Your task to perform on an android device: set the timer Image 0: 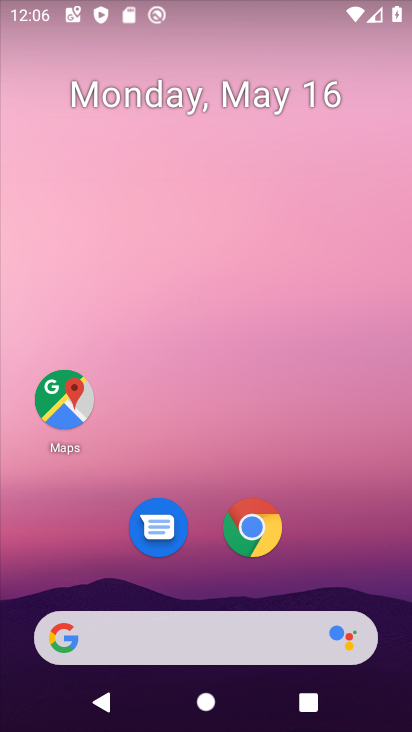
Step 0: drag from (211, 589) to (208, 70)
Your task to perform on an android device: set the timer Image 1: 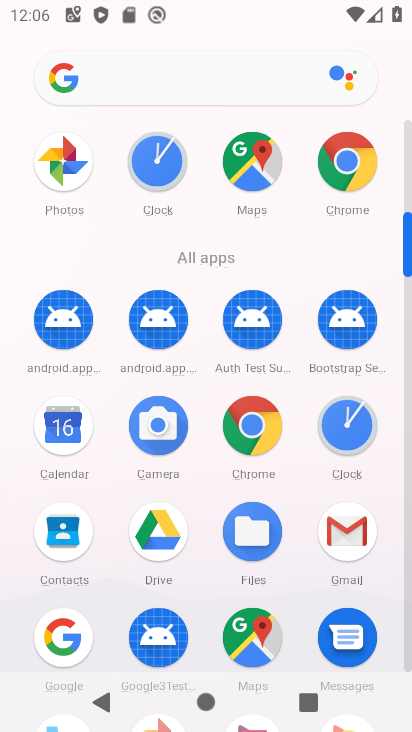
Step 1: click (163, 199)
Your task to perform on an android device: set the timer Image 2: 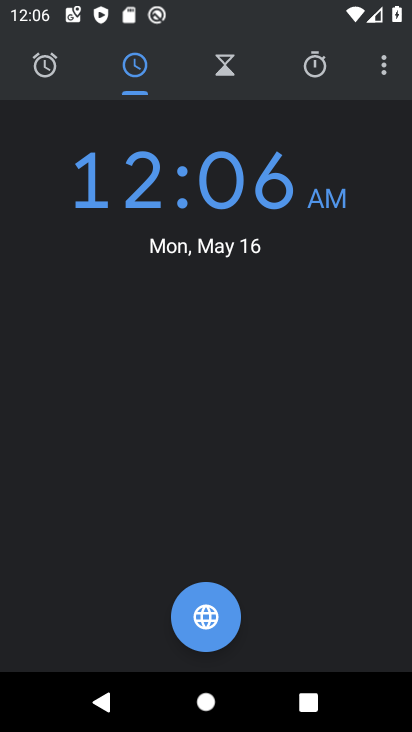
Step 2: click (230, 60)
Your task to perform on an android device: set the timer Image 3: 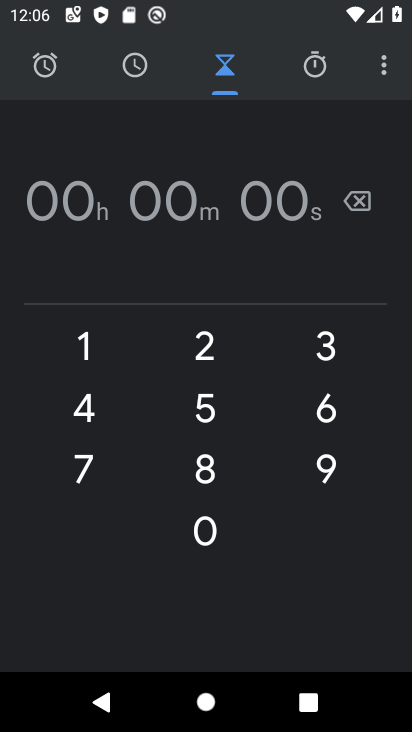
Step 3: click (329, 466)
Your task to perform on an android device: set the timer Image 4: 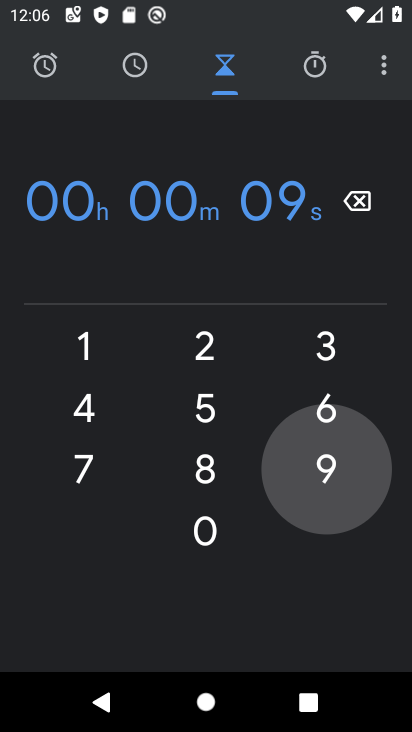
Step 4: click (194, 406)
Your task to perform on an android device: set the timer Image 5: 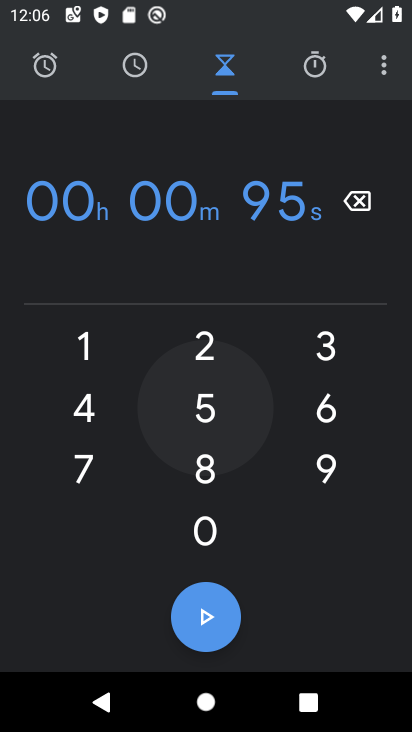
Step 5: click (81, 354)
Your task to perform on an android device: set the timer Image 6: 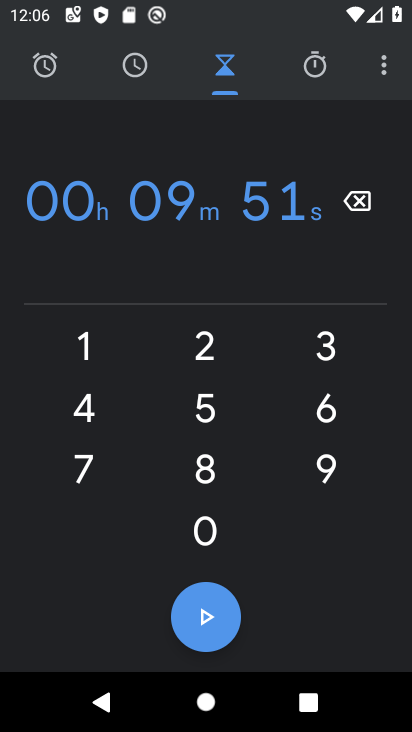
Step 6: click (218, 611)
Your task to perform on an android device: set the timer Image 7: 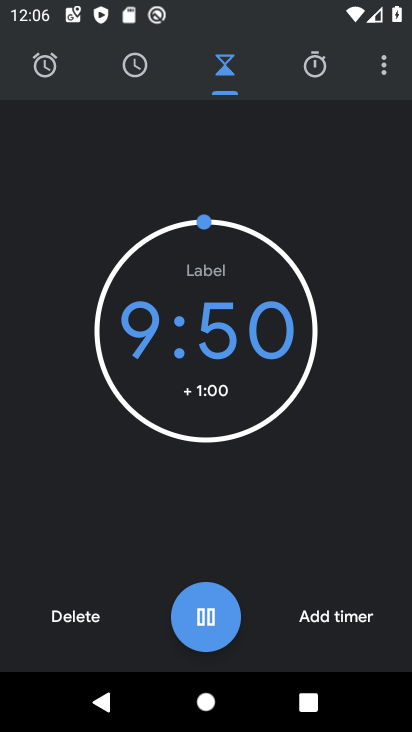
Step 7: task complete